Your task to perform on an android device: Open Chrome and go to settings Image 0: 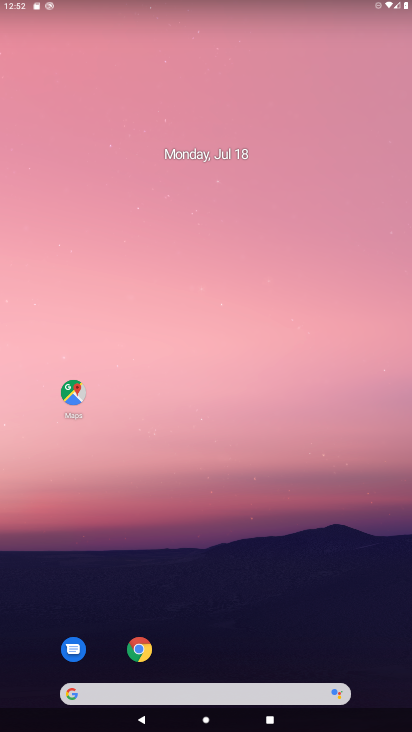
Step 0: click (157, 661)
Your task to perform on an android device: Open Chrome and go to settings Image 1: 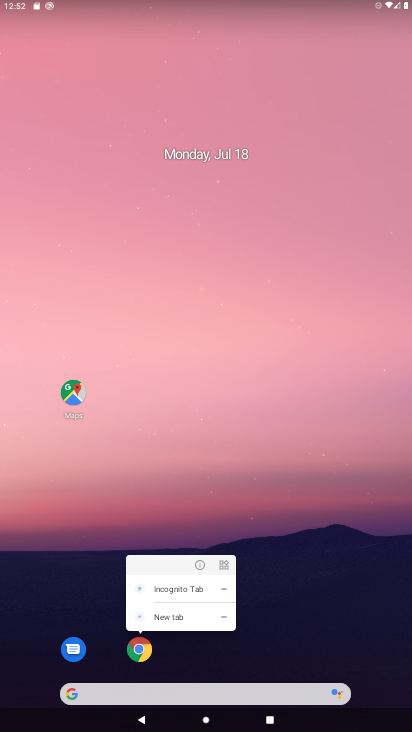
Step 1: click (139, 652)
Your task to perform on an android device: Open Chrome and go to settings Image 2: 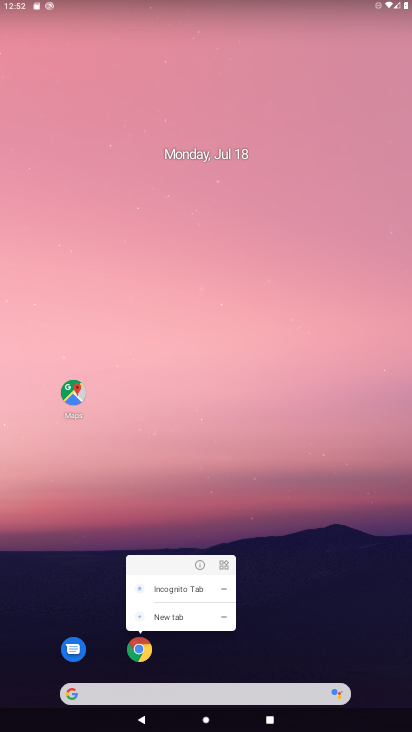
Step 2: click (140, 647)
Your task to perform on an android device: Open Chrome and go to settings Image 3: 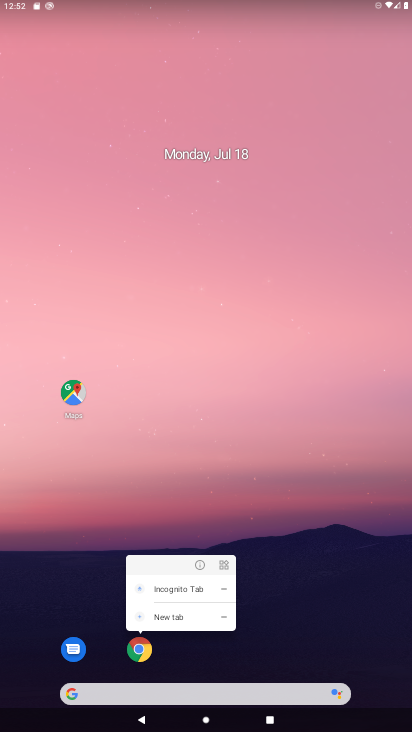
Step 3: click (140, 647)
Your task to perform on an android device: Open Chrome and go to settings Image 4: 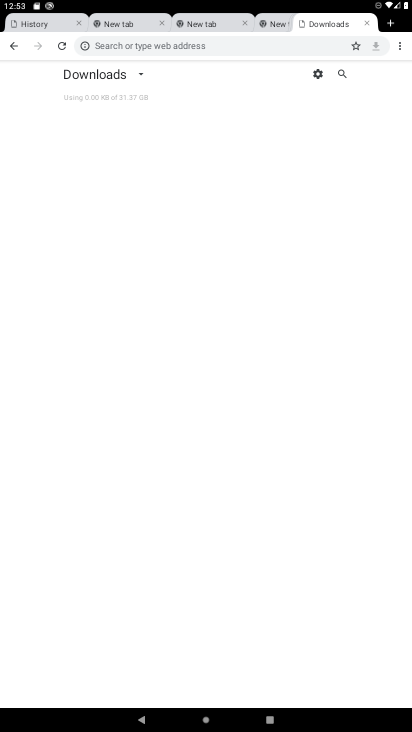
Step 4: click (400, 43)
Your task to perform on an android device: Open Chrome and go to settings Image 5: 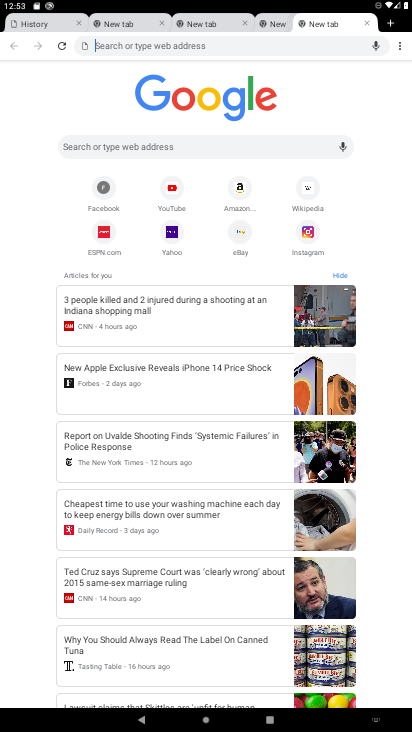
Step 5: click (399, 48)
Your task to perform on an android device: Open Chrome and go to settings Image 6: 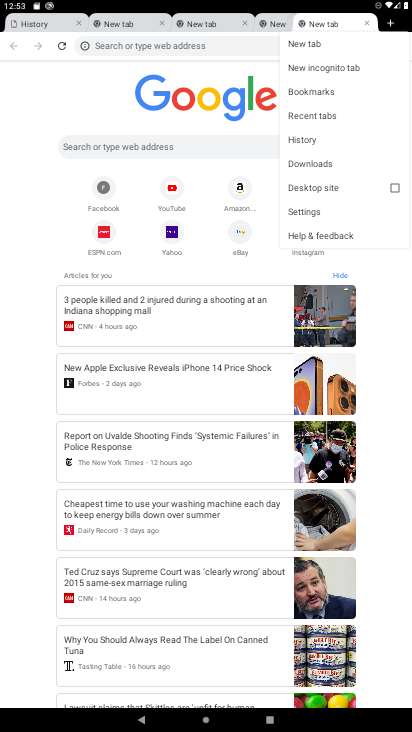
Step 6: click (309, 205)
Your task to perform on an android device: Open Chrome and go to settings Image 7: 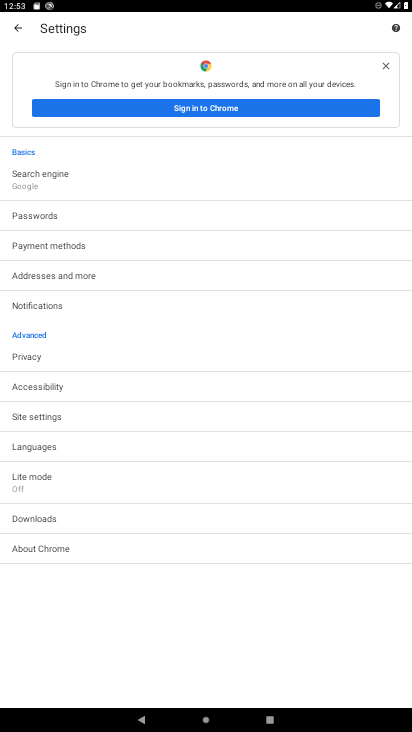
Step 7: task complete